Your task to perform on an android device: Open my contact list Image 0: 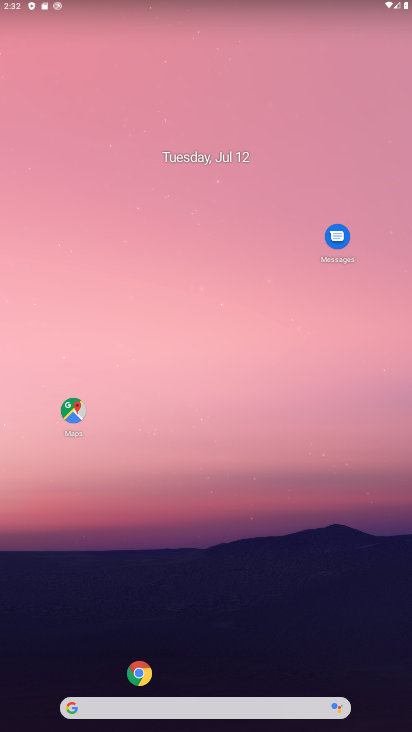
Step 0: drag from (22, 693) to (162, 6)
Your task to perform on an android device: Open my contact list Image 1: 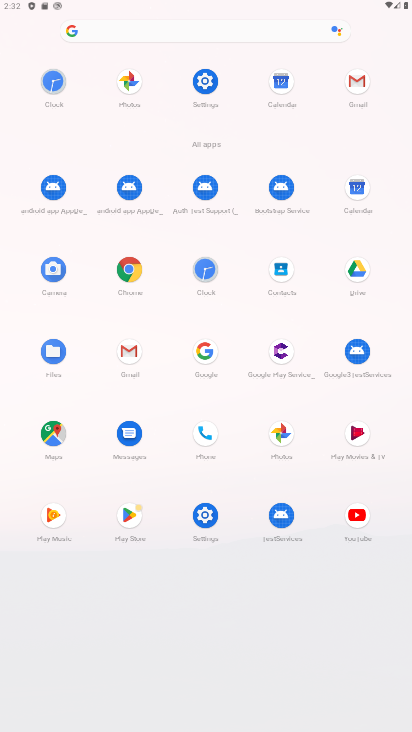
Step 1: click (210, 441)
Your task to perform on an android device: Open my contact list Image 2: 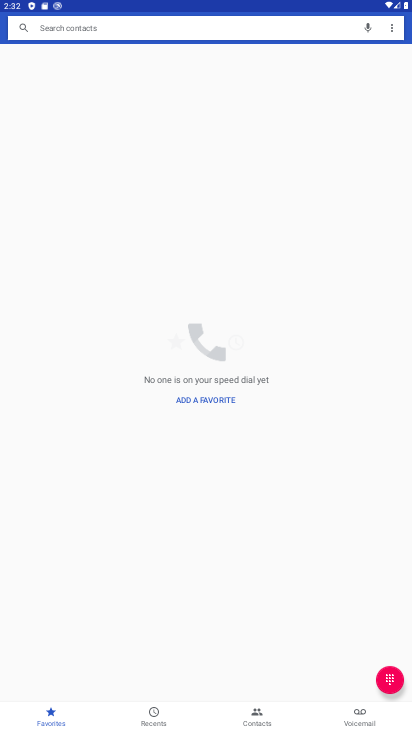
Step 2: click (271, 718)
Your task to perform on an android device: Open my contact list Image 3: 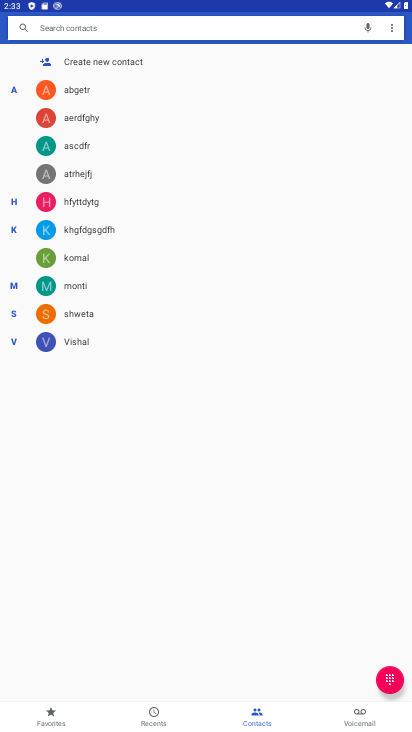
Step 3: task complete